Your task to perform on an android device: Go to Wikipedia Image 0: 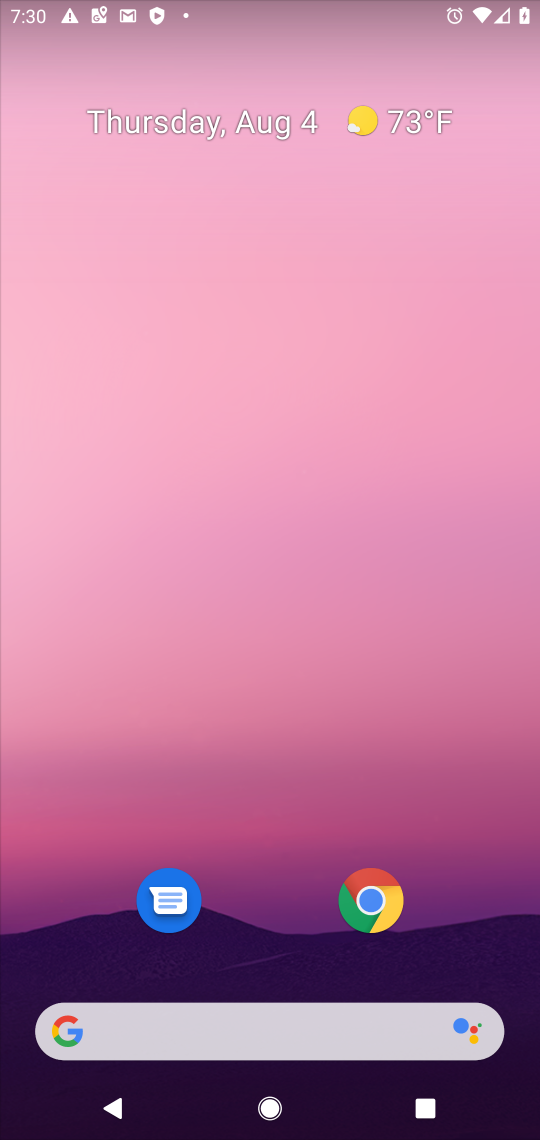
Step 0: click (371, 903)
Your task to perform on an android device: Go to Wikipedia Image 1: 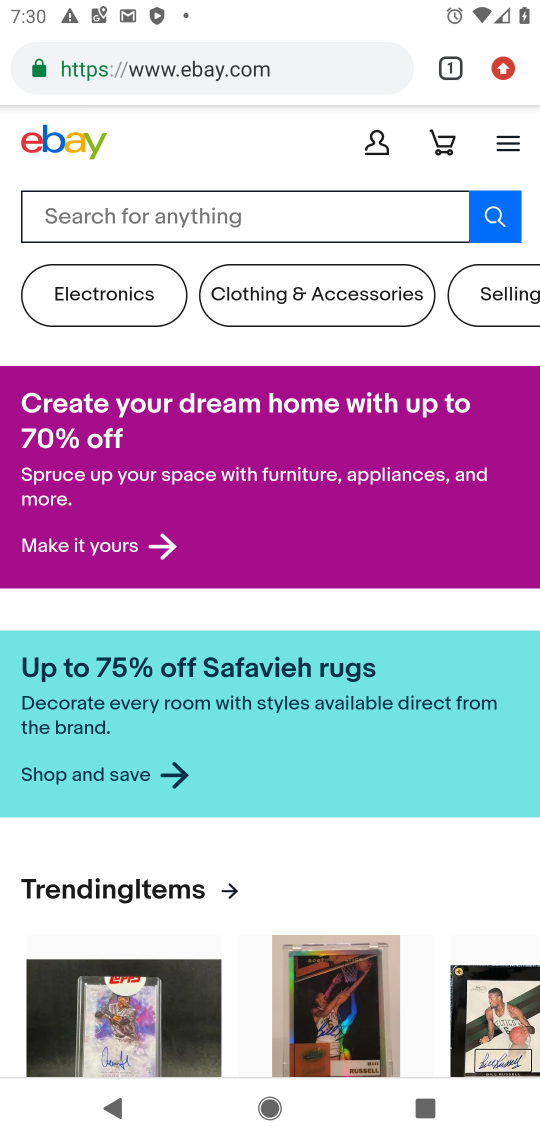
Step 1: click (332, 72)
Your task to perform on an android device: Go to Wikipedia Image 2: 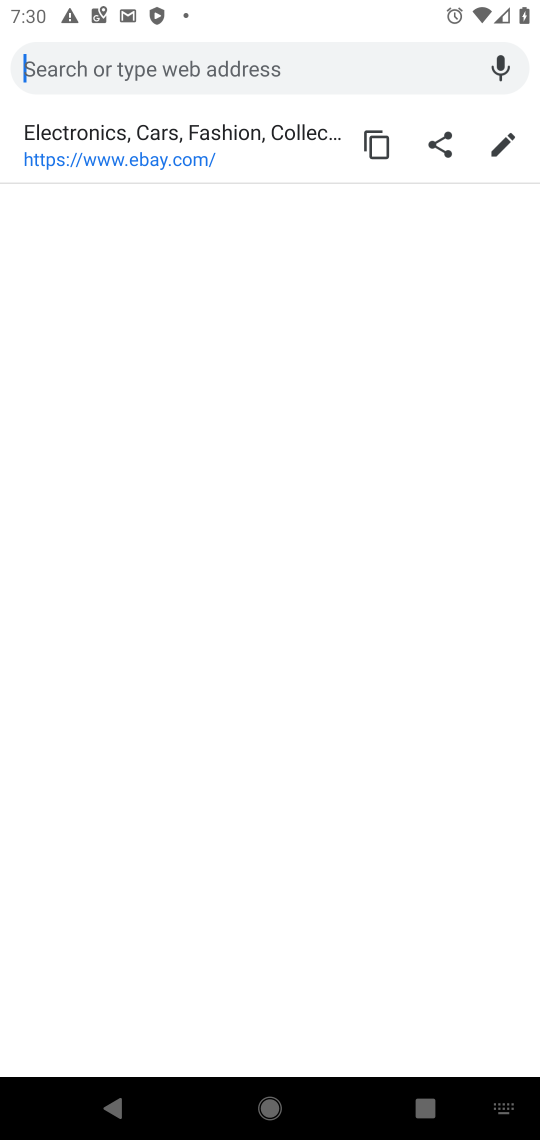
Step 2: type "Wikipedia"
Your task to perform on an android device: Go to Wikipedia Image 3: 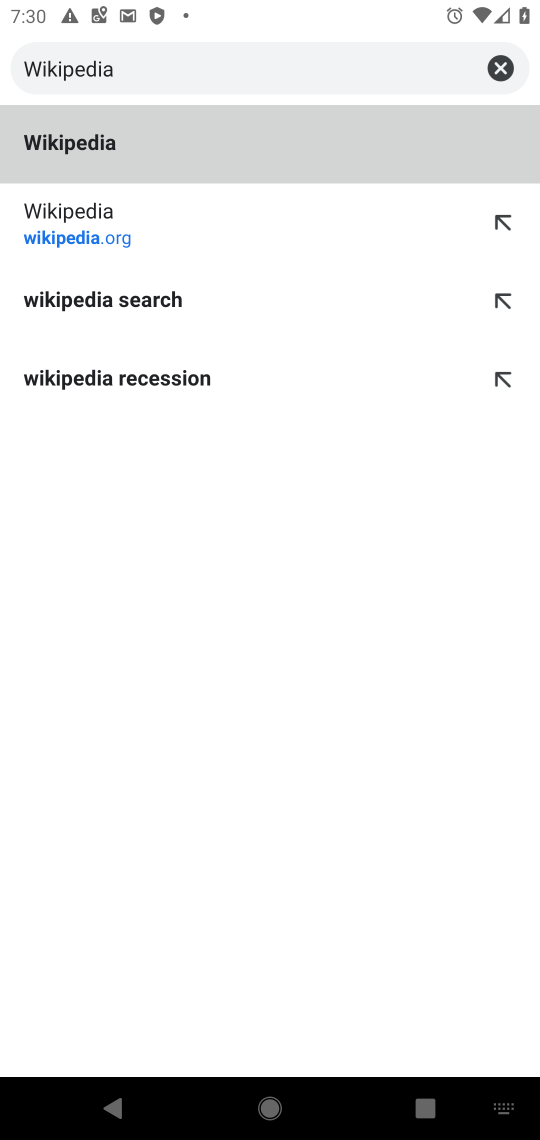
Step 3: click (88, 146)
Your task to perform on an android device: Go to Wikipedia Image 4: 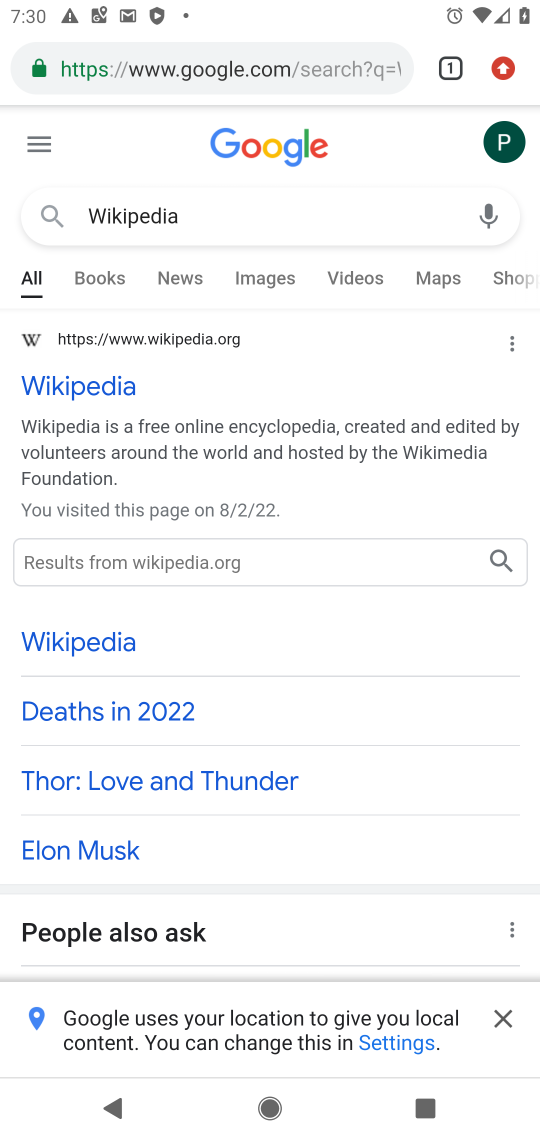
Step 4: click (109, 385)
Your task to perform on an android device: Go to Wikipedia Image 5: 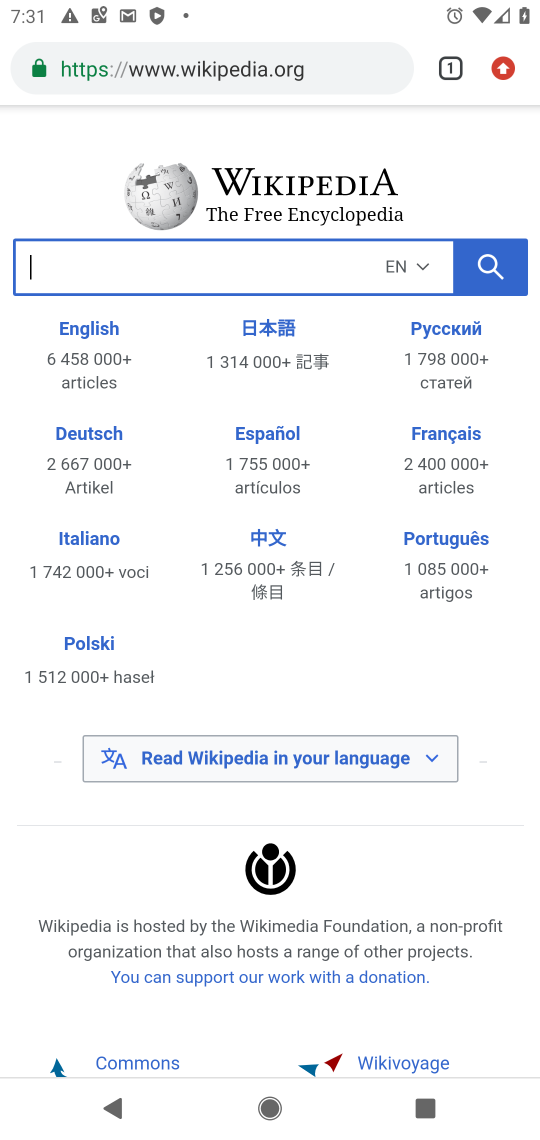
Step 5: task complete